Your task to perform on an android device: turn on sleep mode Image 0: 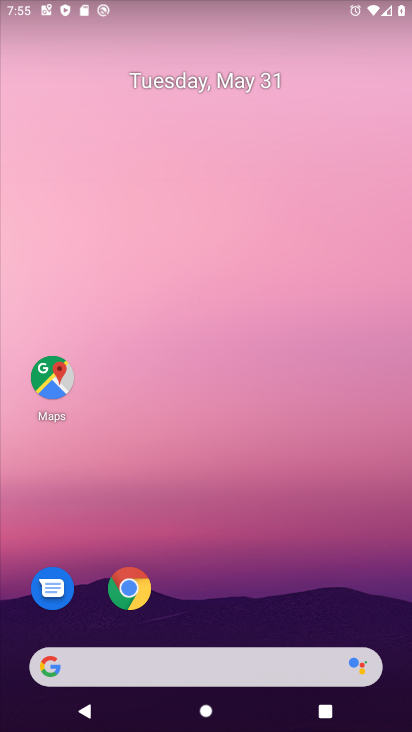
Step 0: drag from (188, 536) to (250, 249)
Your task to perform on an android device: turn on sleep mode Image 1: 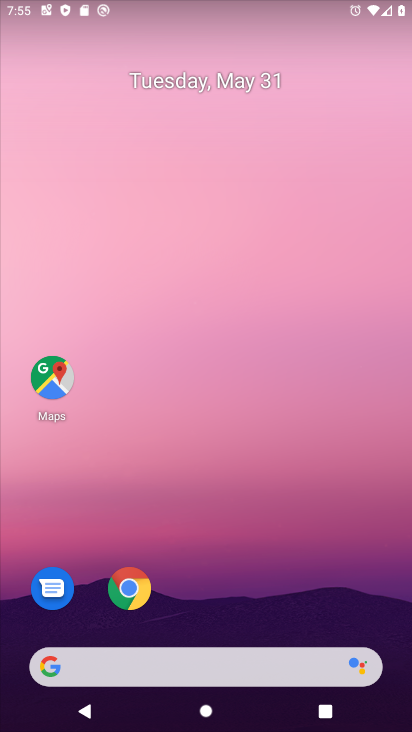
Step 1: drag from (205, 632) to (288, 24)
Your task to perform on an android device: turn on sleep mode Image 2: 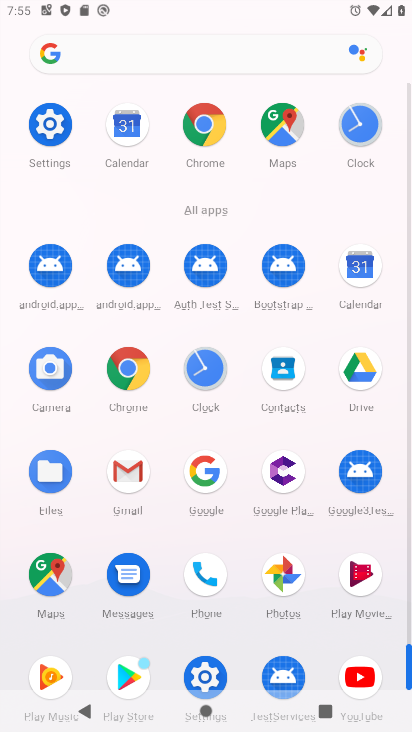
Step 2: click (204, 664)
Your task to perform on an android device: turn on sleep mode Image 3: 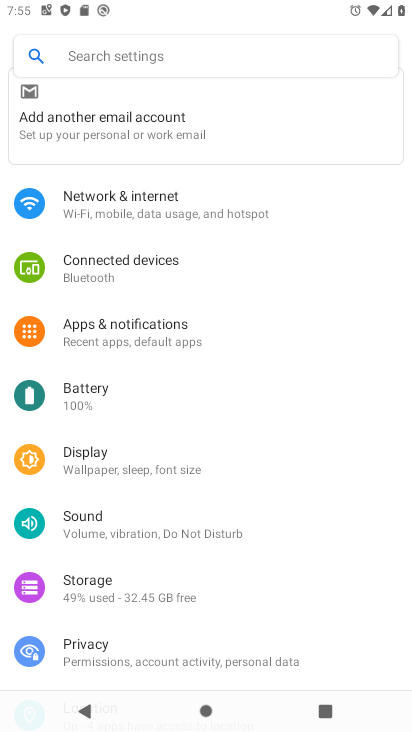
Step 3: click (228, 41)
Your task to perform on an android device: turn on sleep mode Image 4: 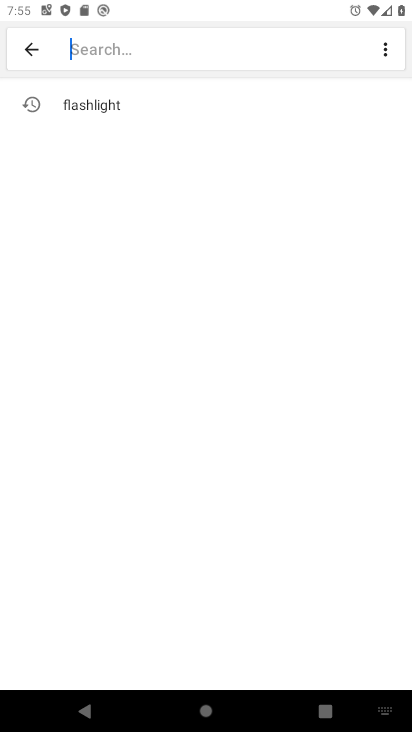
Step 4: type "sleep mode"
Your task to perform on an android device: turn on sleep mode Image 5: 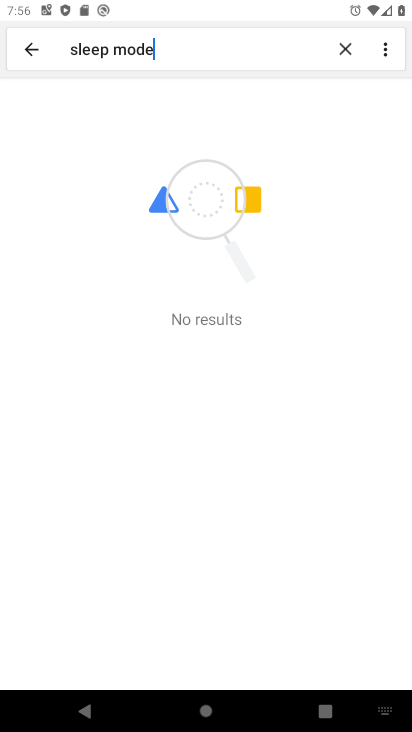
Step 5: task complete